Your task to perform on an android device: turn on notifications settings in the gmail app Image 0: 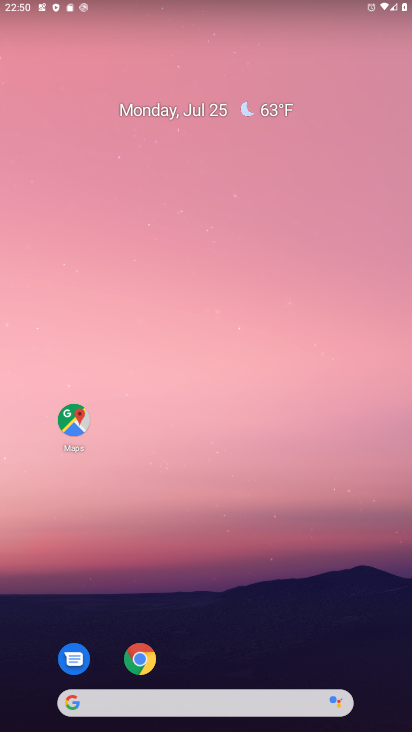
Step 0: drag from (195, 728) to (157, 4)
Your task to perform on an android device: turn on notifications settings in the gmail app Image 1: 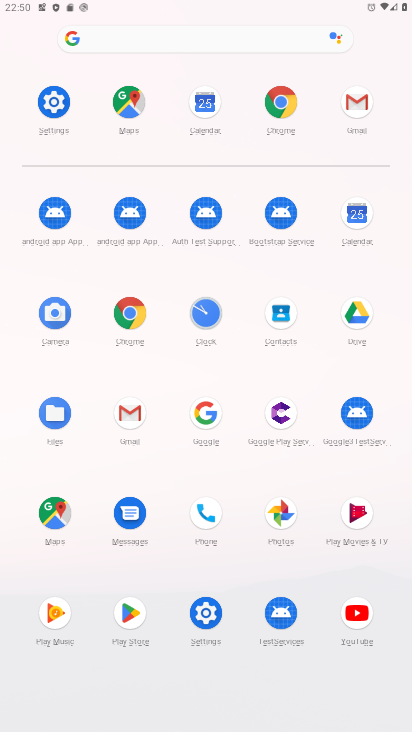
Step 1: click (132, 415)
Your task to perform on an android device: turn on notifications settings in the gmail app Image 2: 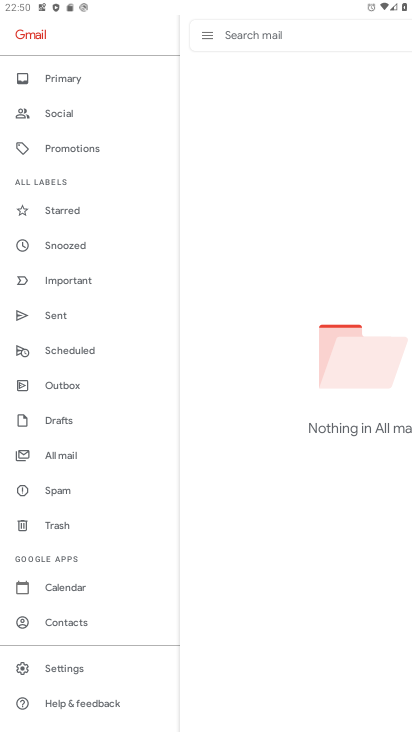
Step 2: click (56, 661)
Your task to perform on an android device: turn on notifications settings in the gmail app Image 3: 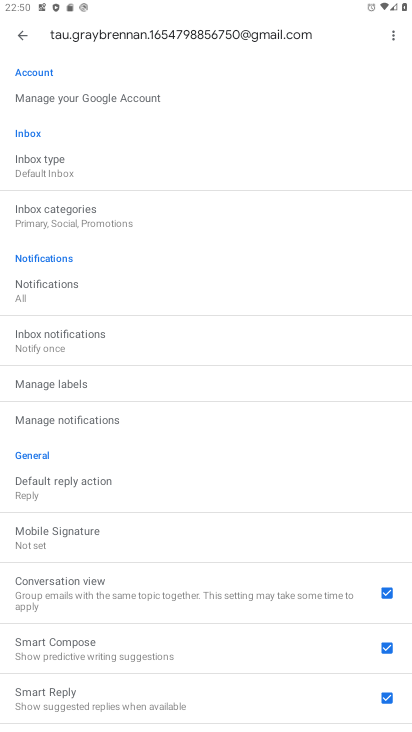
Step 3: task complete